Your task to perform on an android device: Search for sushi restaurants on Maps Image 0: 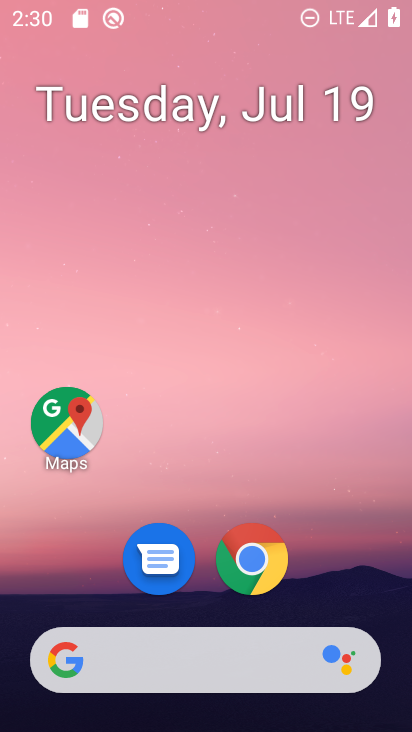
Step 0: drag from (338, 634) to (364, 332)
Your task to perform on an android device: Search for sushi restaurants on Maps Image 1: 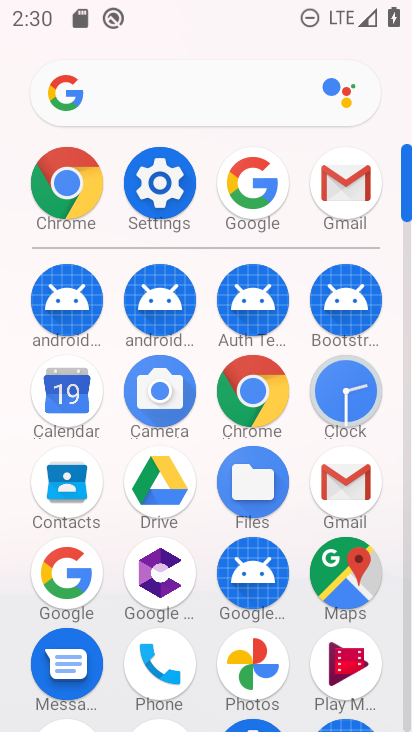
Step 1: click (363, 559)
Your task to perform on an android device: Search for sushi restaurants on Maps Image 2: 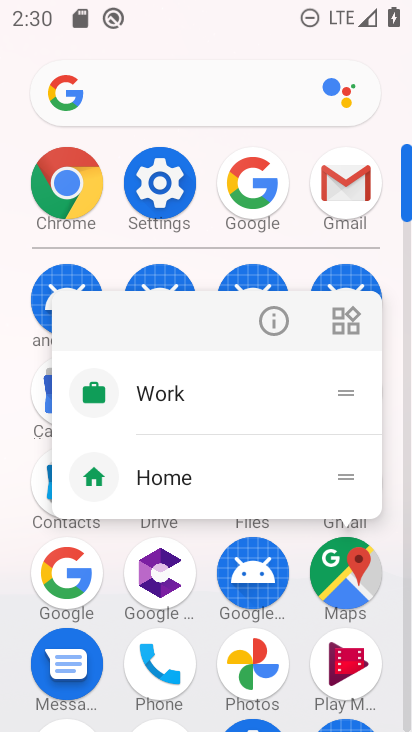
Step 2: click (355, 568)
Your task to perform on an android device: Search for sushi restaurants on Maps Image 3: 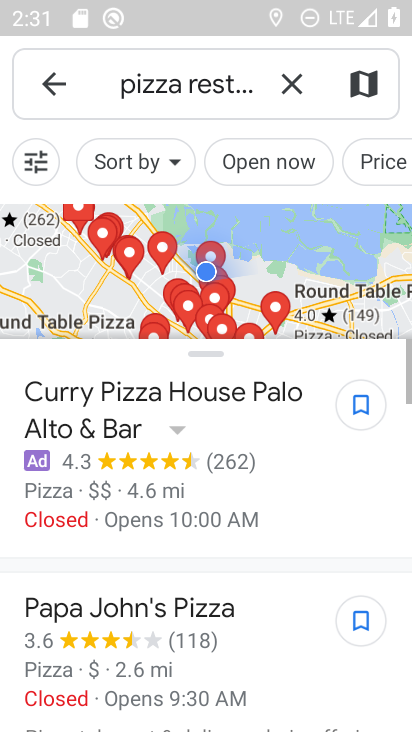
Step 3: click (290, 94)
Your task to perform on an android device: Search for sushi restaurants on Maps Image 4: 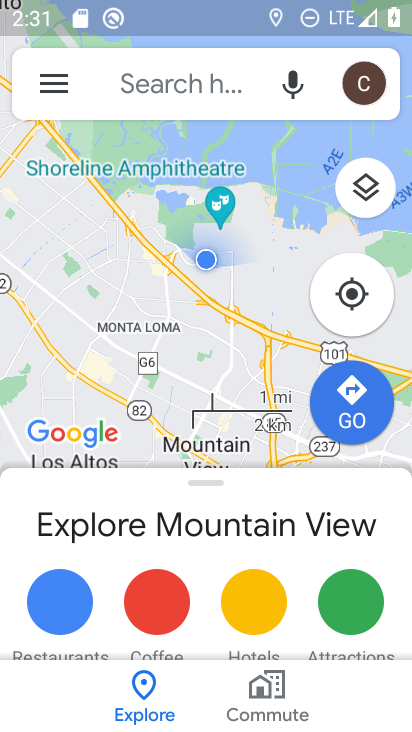
Step 4: click (224, 91)
Your task to perform on an android device: Search for sushi restaurants on Maps Image 5: 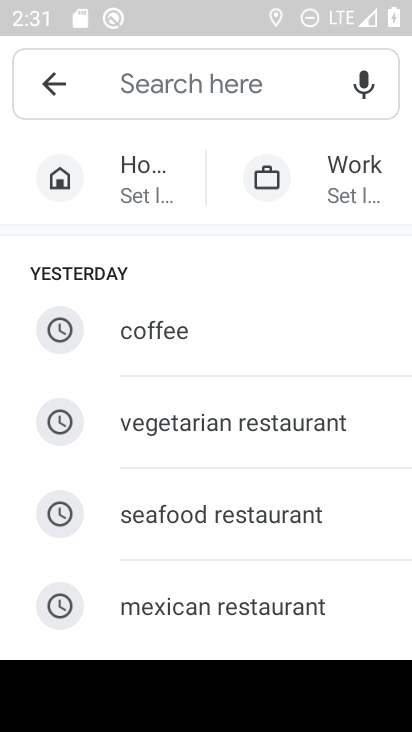
Step 5: drag from (239, 554) to (271, 103)
Your task to perform on an android device: Search for sushi restaurants on Maps Image 6: 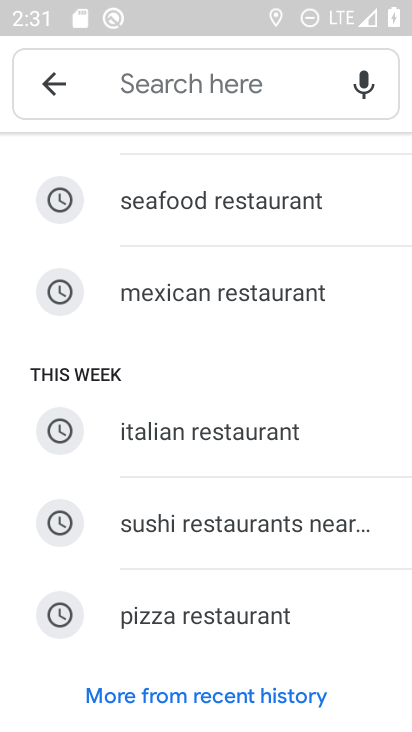
Step 6: click (265, 515)
Your task to perform on an android device: Search for sushi restaurants on Maps Image 7: 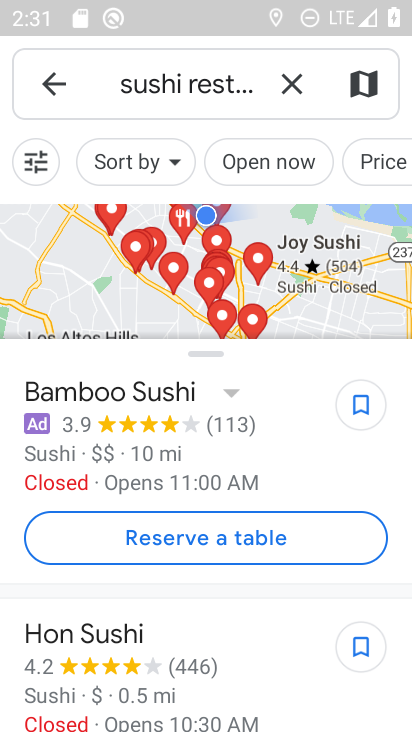
Step 7: task complete